Your task to perform on an android device: turn off translation in the chrome app Image 0: 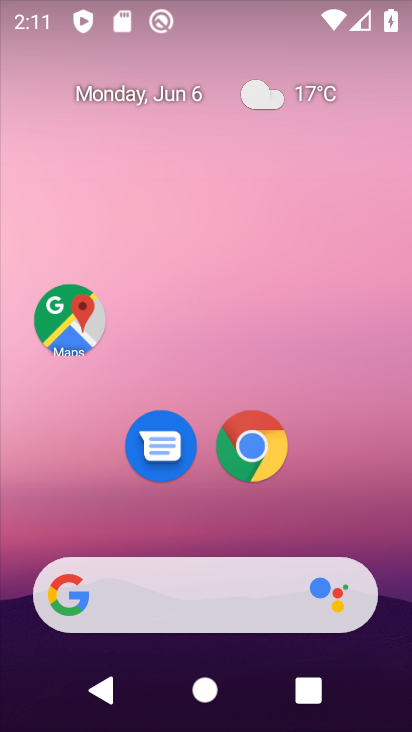
Step 0: click (250, 443)
Your task to perform on an android device: turn off translation in the chrome app Image 1: 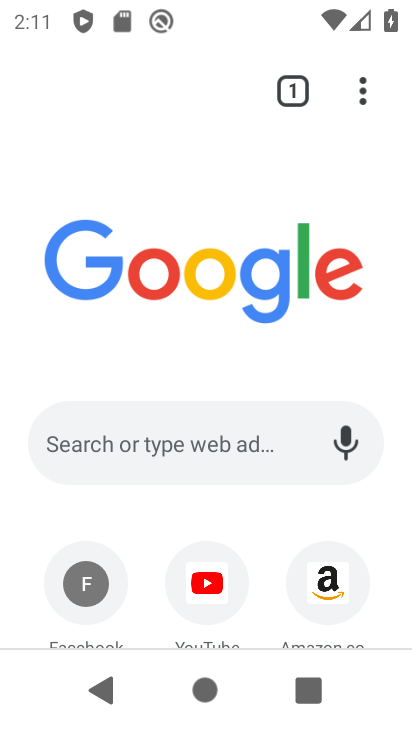
Step 1: drag from (360, 89) to (111, 474)
Your task to perform on an android device: turn off translation in the chrome app Image 2: 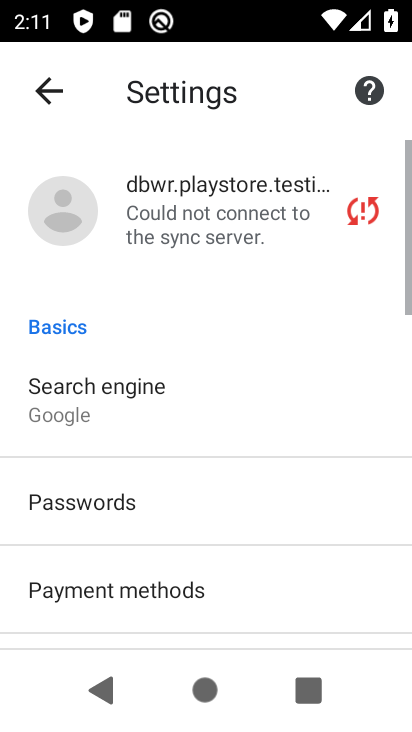
Step 2: drag from (119, 596) to (216, 131)
Your task to perform on an android device: turn off translation in the chrome app Image 3: 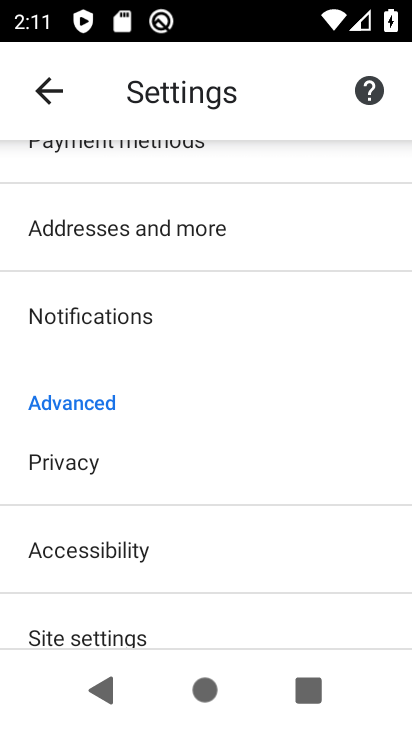
Step 3: drag from (153, 624) to (214, 147)
Your task to perform on an android device: turn off translation in the chrome app Image 4: 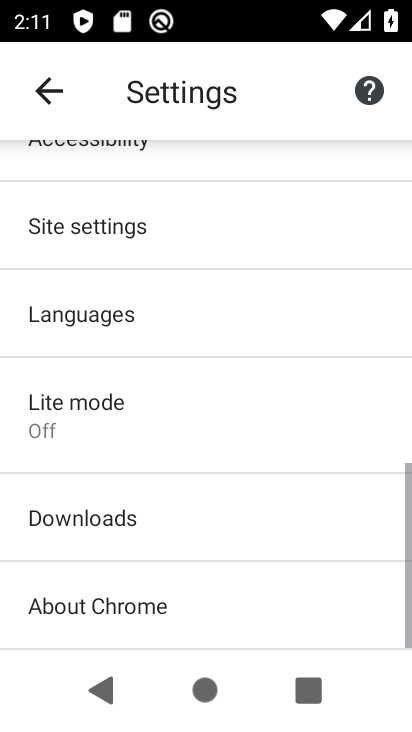
Step 4: click (87, 314)
Your task to perform on an android device: turn off translation in the chrome app Image 5: 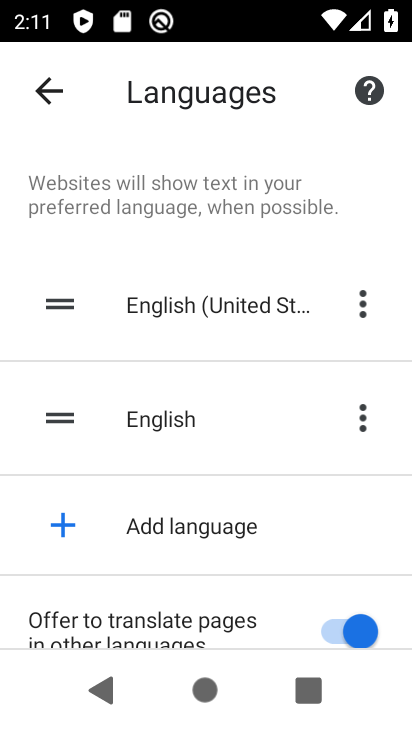
Step 5: click (361, 632)
Your task to perform on an android device: turn off translation in the chrome app Image 6: 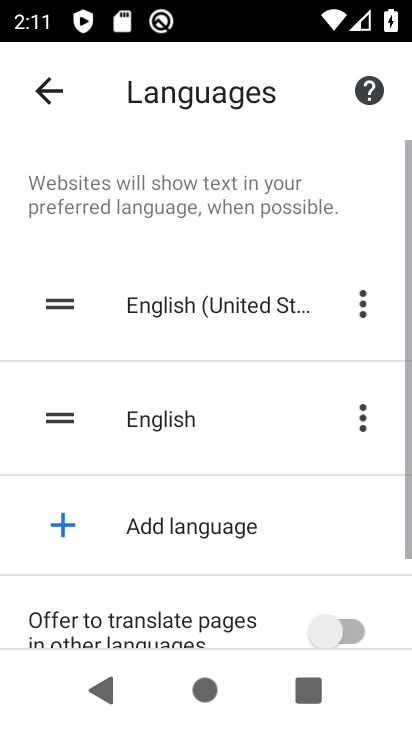
Step 6: task complete